Your task to perform on an android device: turn pop-ups off in chrome Image 0: 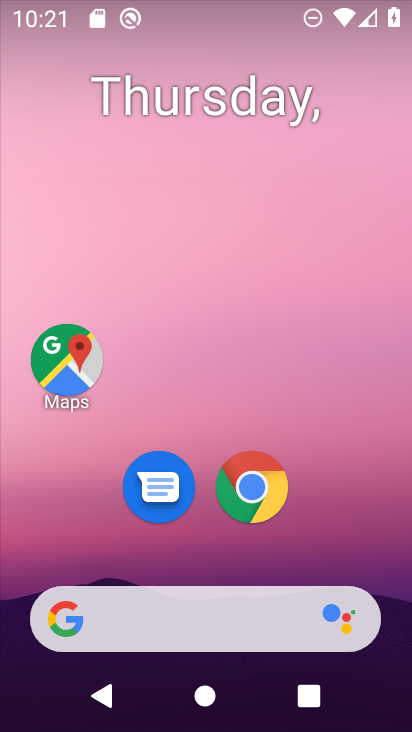
Step 0: click (261, 507)
Your task to perform on an android device: turn pop-ups off in chrome Image 1: 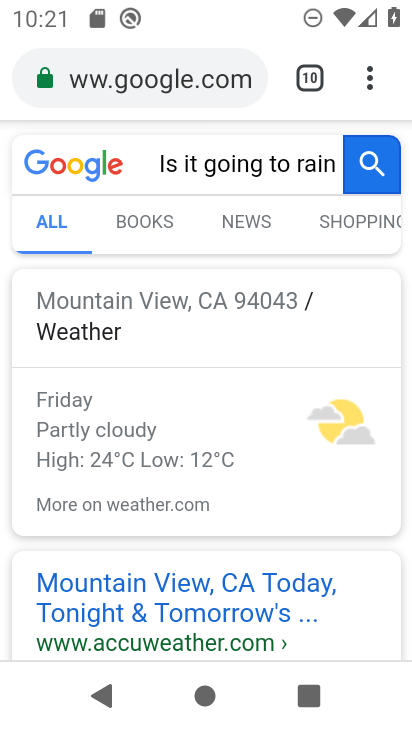
Step 1: click (373, 82)
Your task to perform on an android device: turn pop-ups off in chrome Image 2: 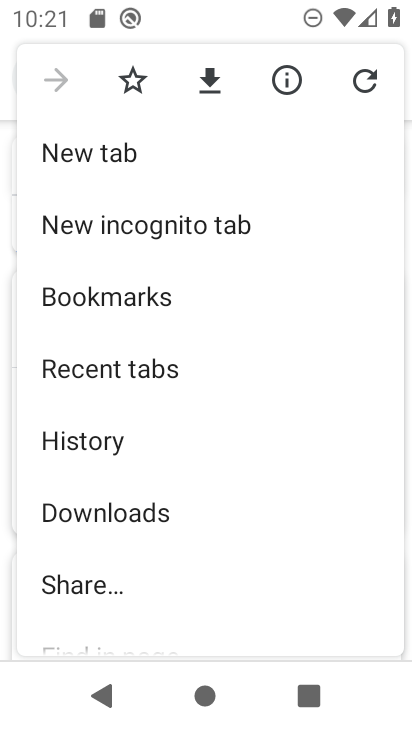
Step 2: drag from (116, 579) to (107, 283)
Your task to perform on an android device: turn pop-ups off in chrome Image 3: 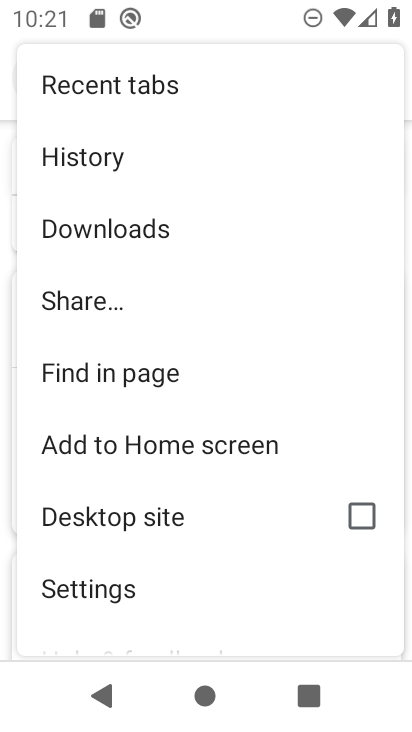
Step 3: click (84, 585)
Your task to perform on an android device: turn pop-ups off in chrome Image 4: 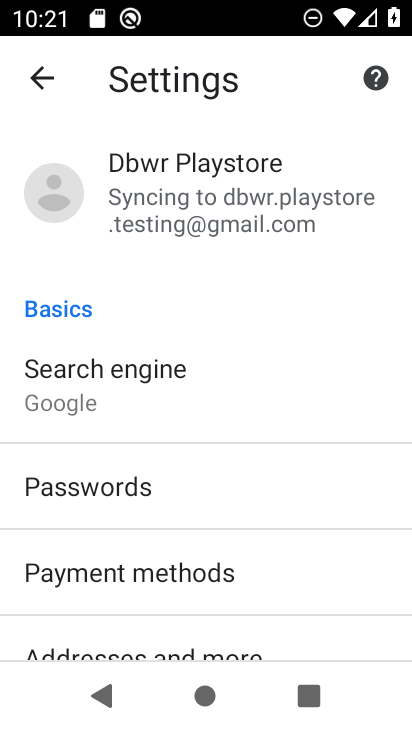
Step 4: drag from (237, 602) to (204, 174)
Your task to perform on an android device: turn pop-ups off in chrome Image 5: 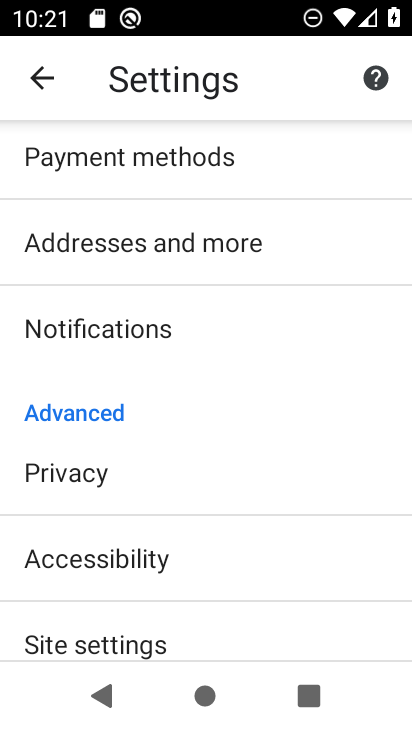
Step 5: click (136, 643)
Your task to perform on an android device: turn pop-ups off in chrome Image 6: 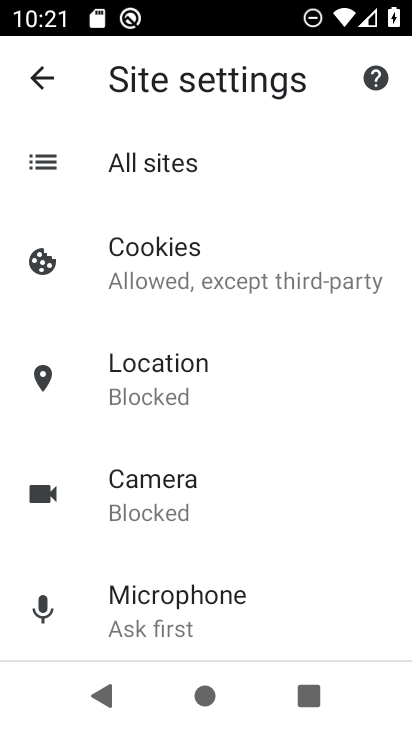
Step 6: drag from (184, 620) to (151, 216)
Your task to perform on an android device: turn pop-ups off in chrome Image 7: 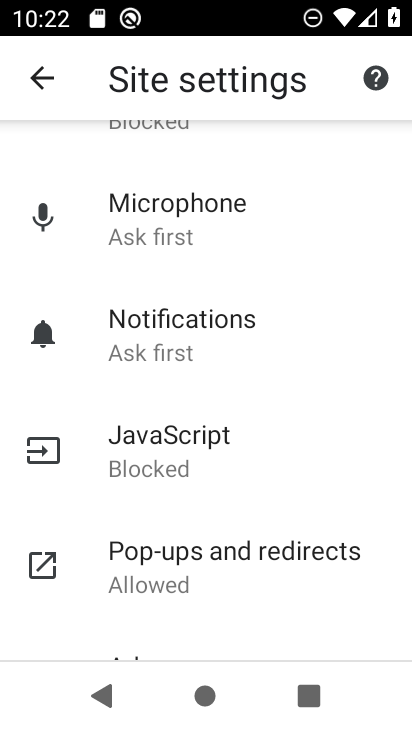
Step 7: click (165, 567)
Your task to perform on an android device: turn pop-ups off in chrome Image 8: 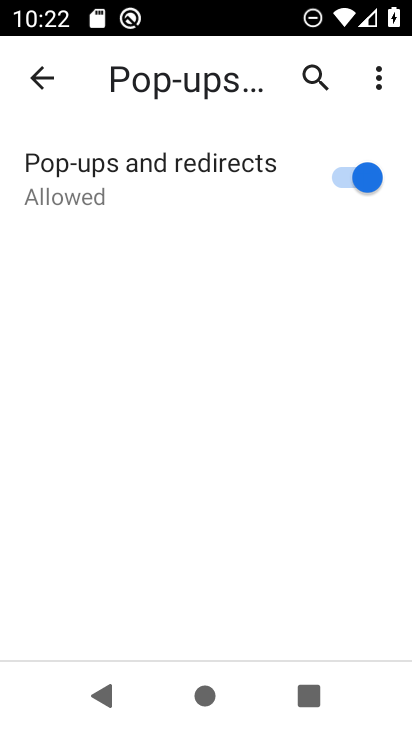
Step 8: click (363, 178)
Your task to perform on an android device: turn pop-ups off in chrome Image 9: 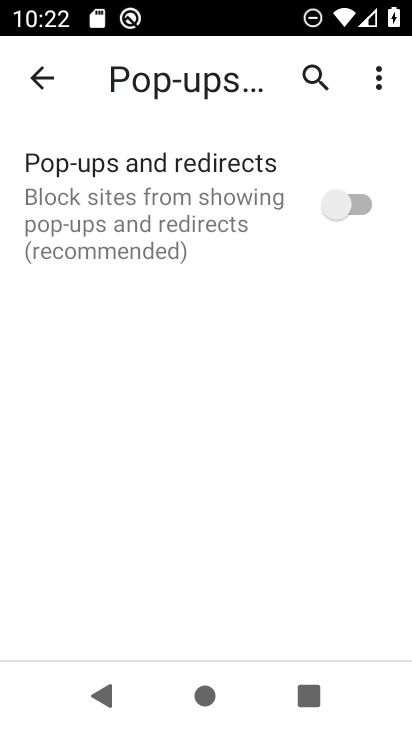
Step 9: task complete